Your task to perform on an android device: turn on javascript in the chrome app Image 0: 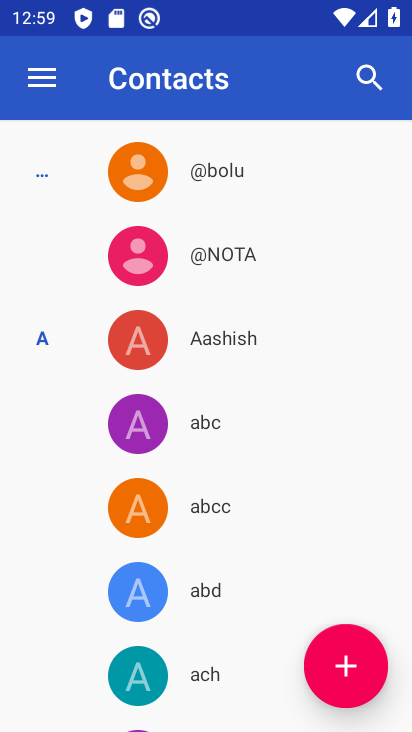
Step 0: press home button
Your task to perform on an android device: turn on javascript in the chrome app Image 1: 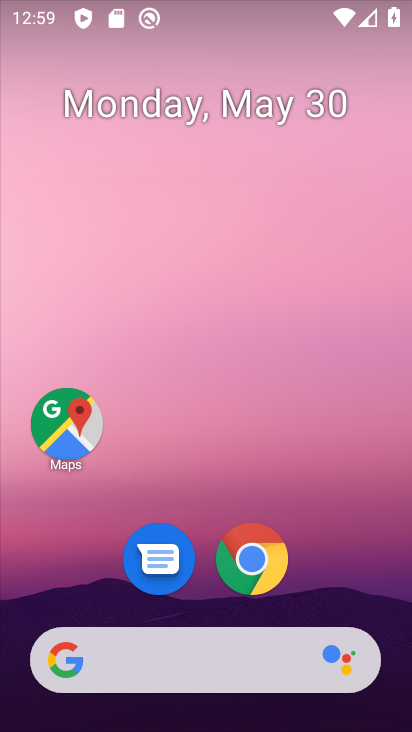
Step 1: click (252, 566)
Your task to perform on an android device: turn on javascript in the chrome app Image 2: 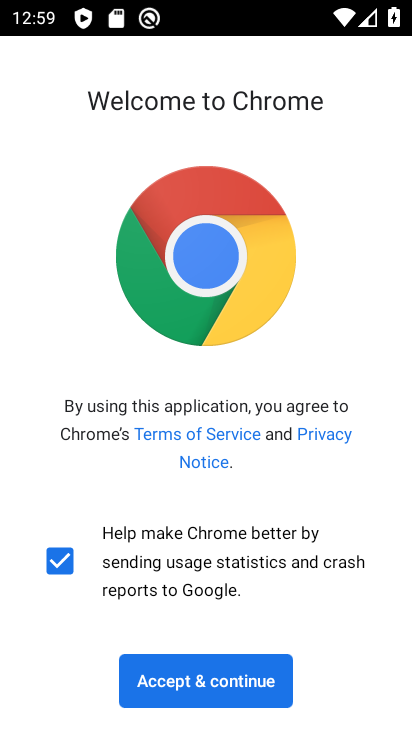
Step 2: click (228, 673)
Your task to perform on an android device: turn on javascript in the chrome app Image 3: 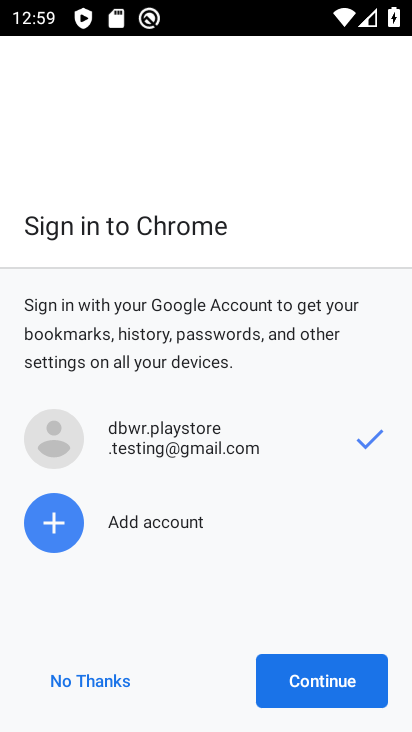
Step 3: click (278, 683)
Your task to perform on an android device: turn on javascript in the chrome app Image 4: 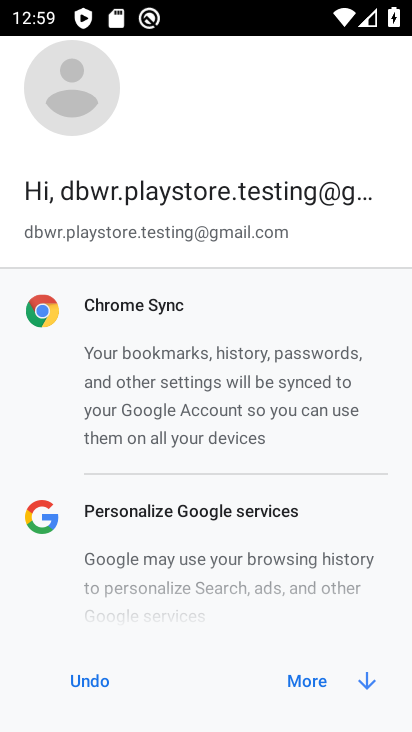
Step 4: click (325, 696)
Your task to perform on an android device: turn on javascript in the chrome app Image 5: 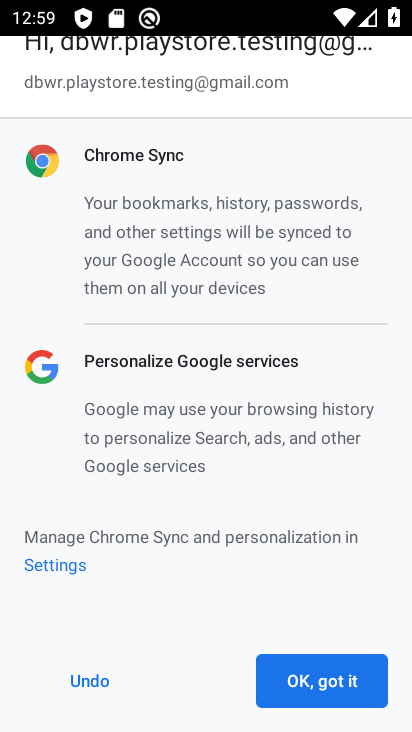
Step 5: click (324, 697)
Your task to perform on an android device: turn on javascript in the chrome app Image 6: 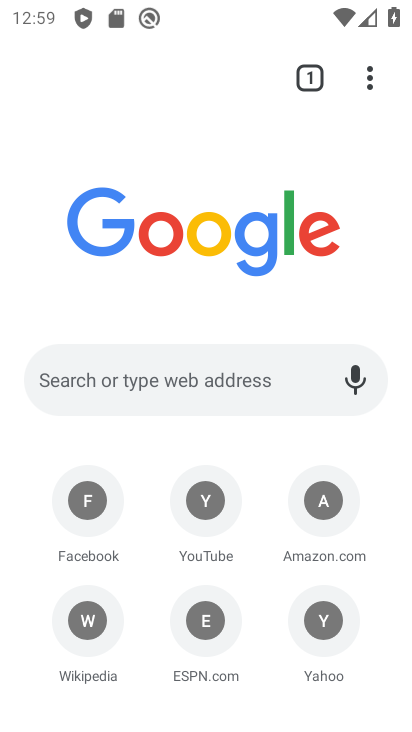
Step 6: click (372, 72)
Your task to perform on an android device: turn on javascript in the chrome app Image 7: 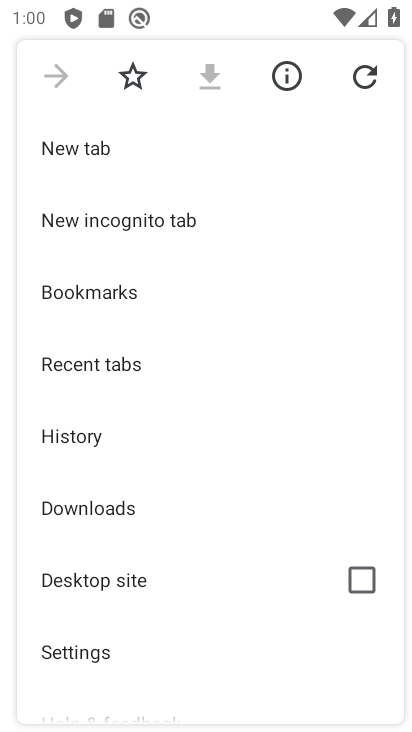
Step 7: click (88, 657)
Your task to perform on an android device: turn on javascript in the chrome app Image 8: 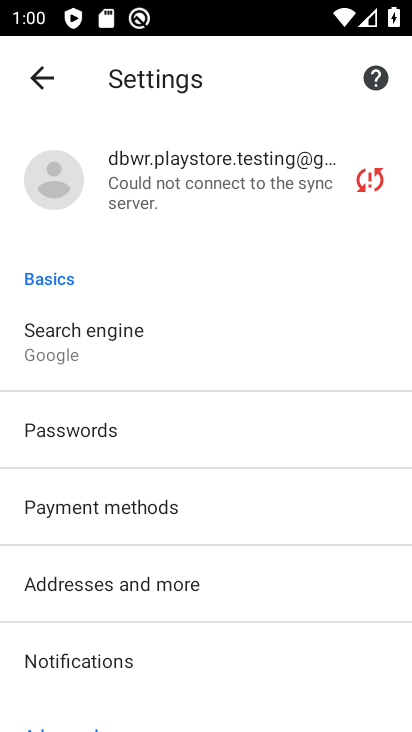
Step 8: drag from (190, 691) to (206, 325)
Your task to perform on an android device: turn on javascript in the chrome app Image 9: 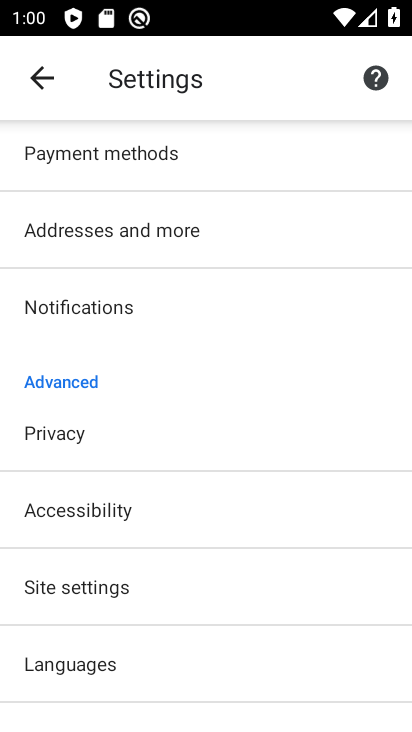
Step 9: click (119, 603)
Your task to perform on an android device: turn on javascript in the chrome app Image 10: 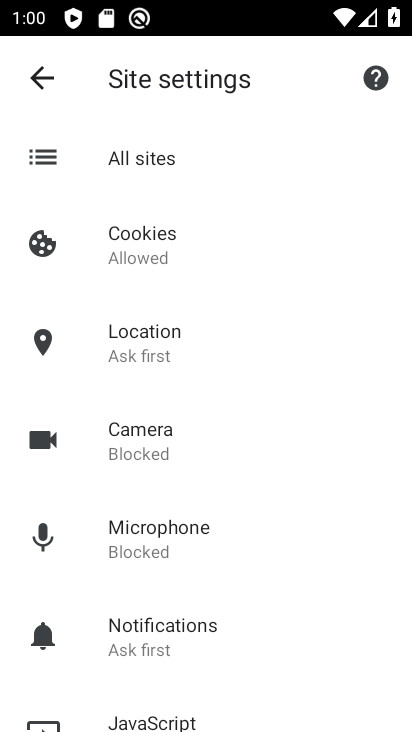
Step 10: click (141, 712)
Your task to perform on an android device: turn on javascript in the chrome app Image 11: 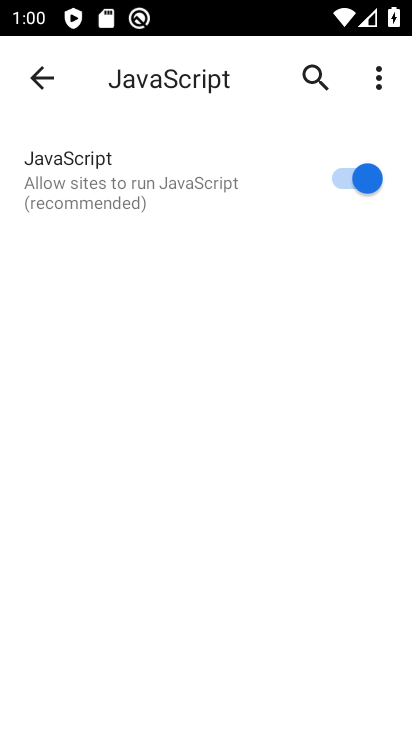
Step 11: task complete